Your task to perform on an android device: turn off notifications in google photos Image 0: 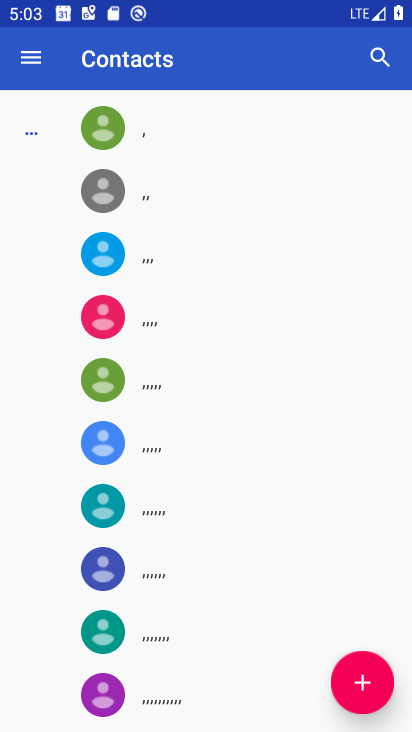
Step 0: press home button
Your task to perform on an android device: turn off notifications in google photos Image 1: 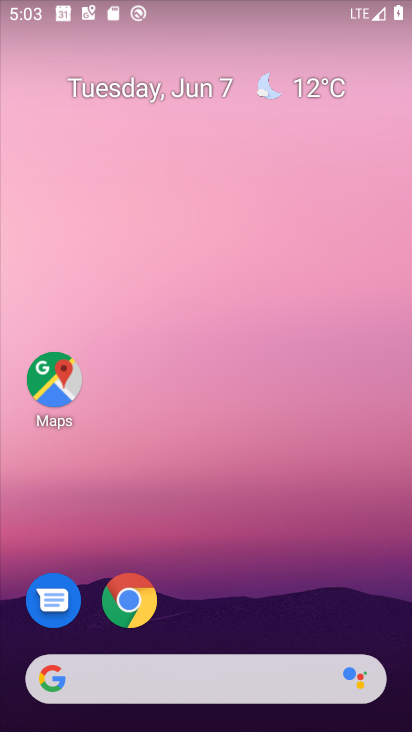
Step 1: drag from (241, 533) to (236, 107)
Your task to perform on an android device: turn off notifications in google photos Image 2: 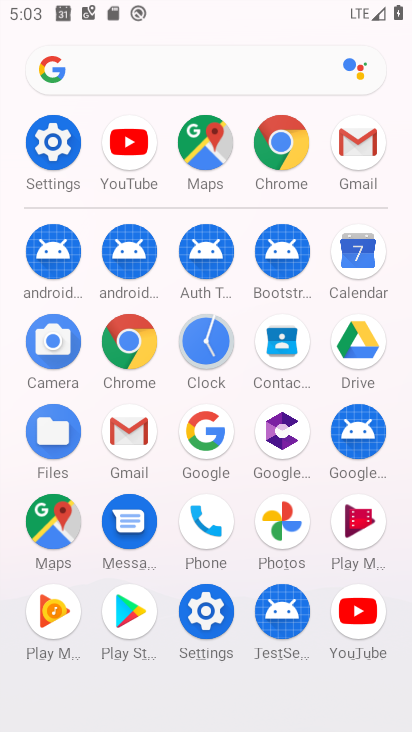
Step 2: click (275, 527)
Your task to perform on an android device: turn off notifications in google photos Image 3: 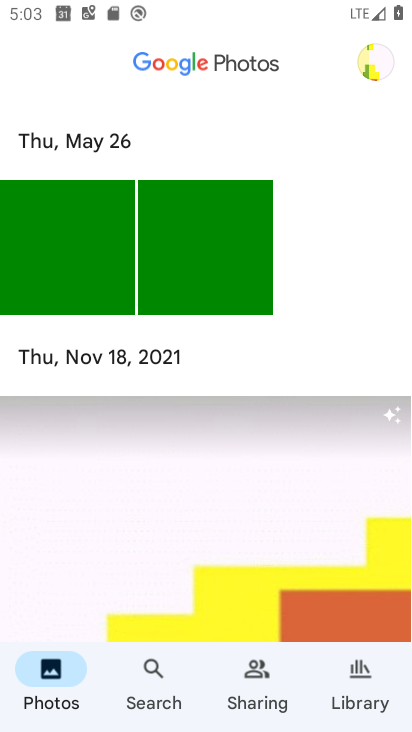
Step 3: click (370, 59)
Your task to perform on an android device: turn off notifications in google photos Image 4: 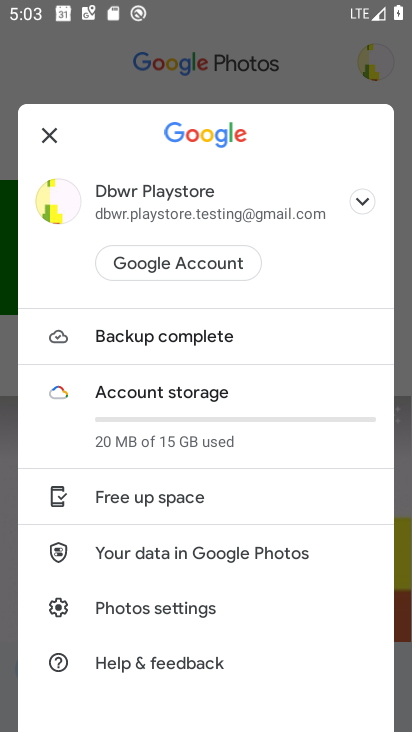
Step 4: drag from (226, 343) to (244, 269)
Your task to perform on an android device: turn off notifications in google photos Image 5: 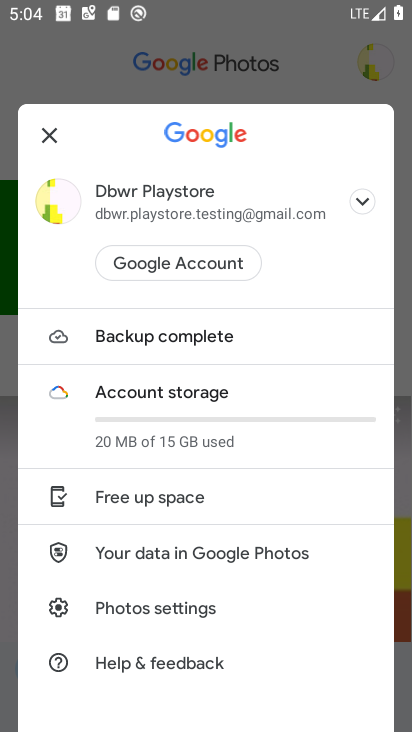
Step 5: click (165, 604)
Your task to perform on an android device: turn off notifications in google photos Image 6: 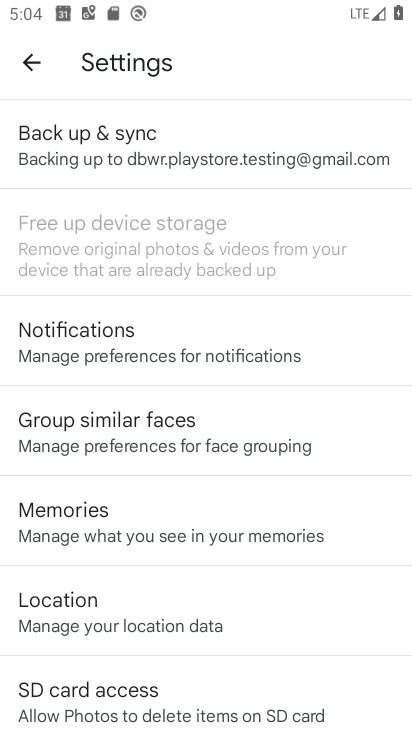
Step 6: click (113, 131)
Your task to perform on an android device: turn off notifications in google photos Image 7: 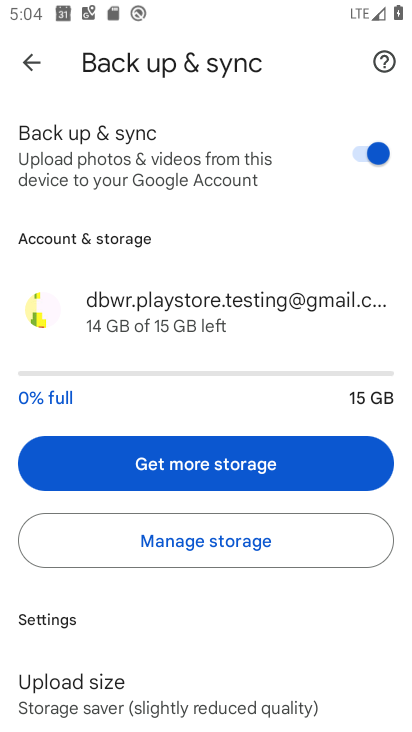
Step 7: click (42, 65)
Your task to perform on an android device: turn off notifications in google photos Image 8: 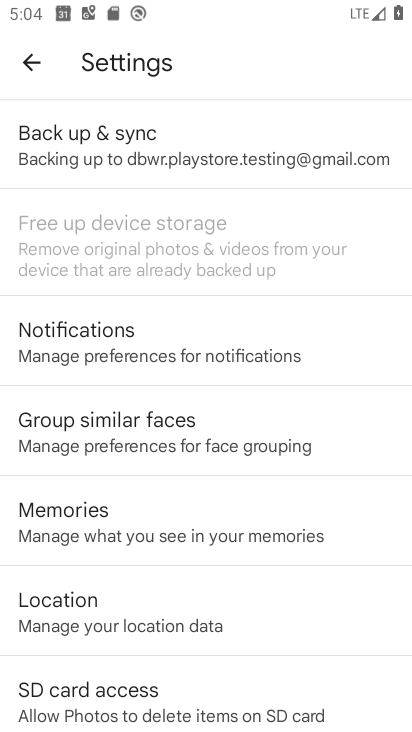
Step 8: click (134, 358)
Your task to perform on an android device: turn off notifications in google photos Image 9: 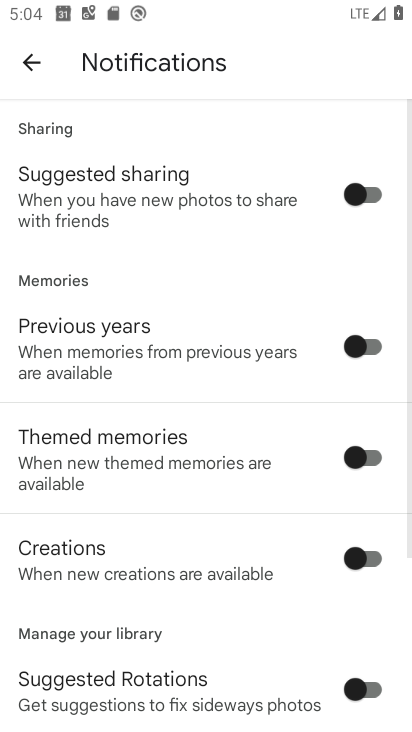
Step 9: drag from (185, 582) to (249, 109)
Your task to perform on an android device: turn off notifications in google photos Image 10: 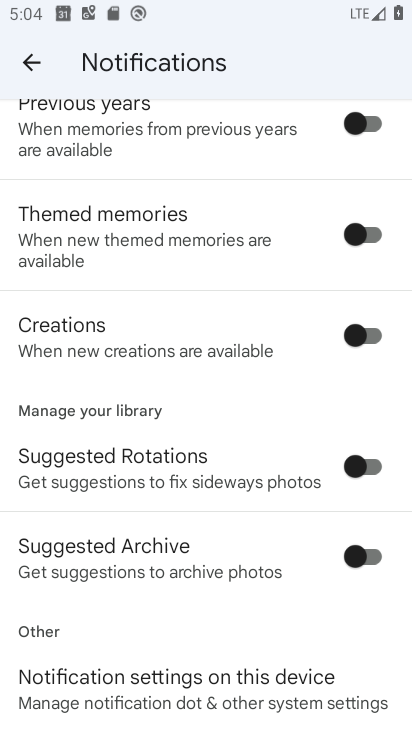
Step 10: click (223, 697)
Your task to perform on an android device: turn off notifications in google photos Image 11: 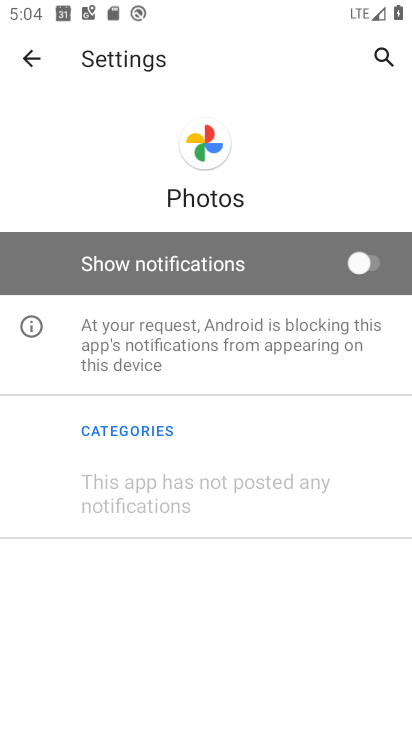
Step 11: task complete